Your task to perform on an android device: refresh tabs in the chrome app Image 0: 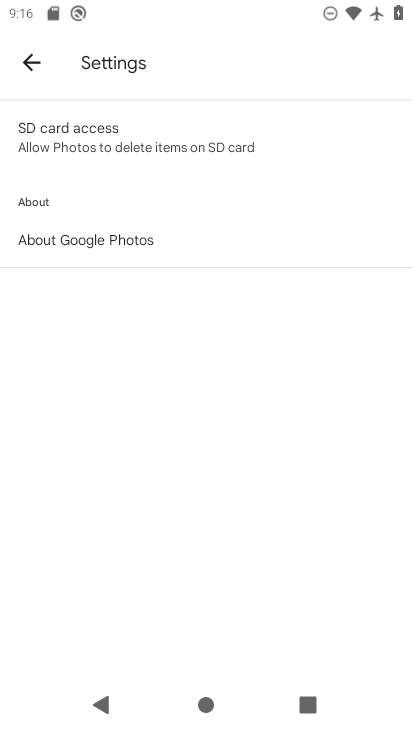
Step 0: press home button
Your task to perform on an android device: refresh tabs in the chrome app Image 1: 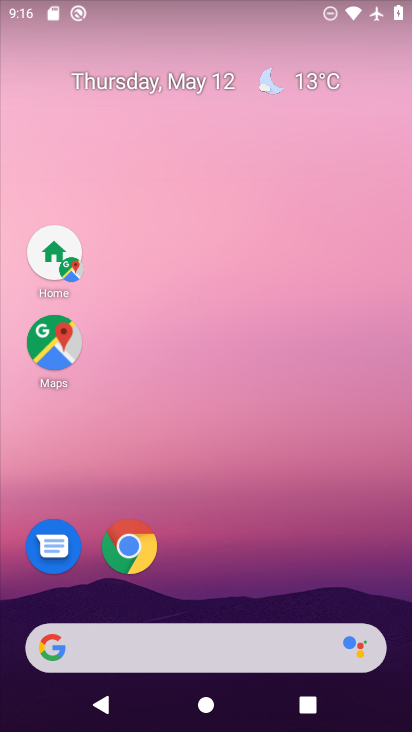
Step 1: drag from (151, 657) to (289, 104)
Your task to perform on an android device: refresh tabs in the chrome app Image 2: 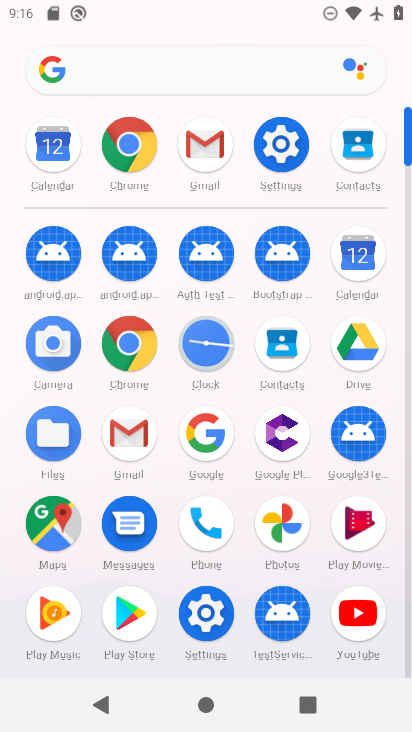
Step 2: click (127, 158)
Your task to perform on an android device: refresh tabs in the chrome app Image 3: 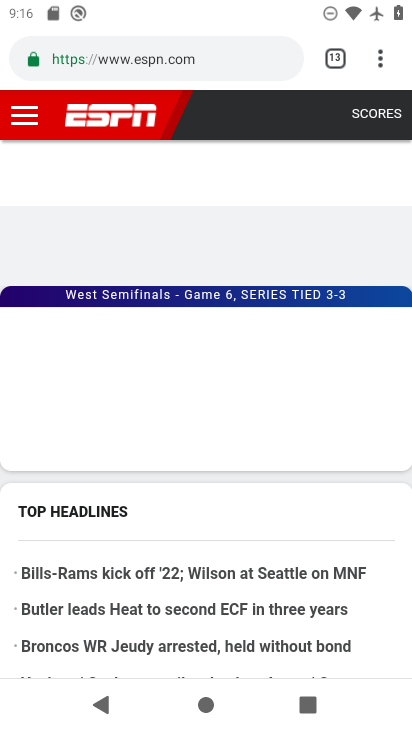
Step 3: click (380, 76)
Your task to perform on an android device: refresh tabs in the chrome app Image 4: 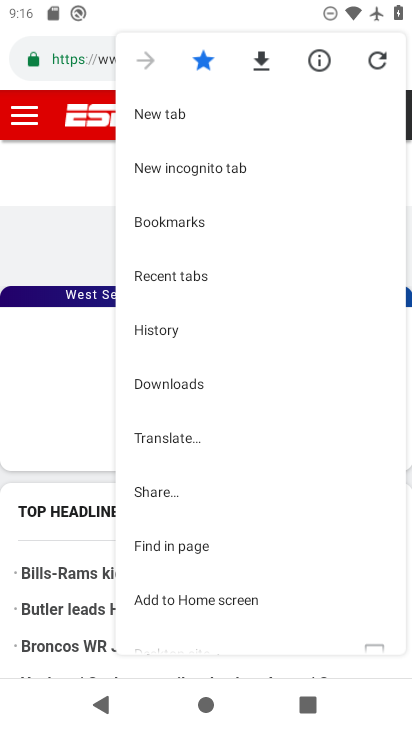
Step 4: click (370, 60)
Your task to perform on an android device: refresh tabs in the chrome app Image 5: 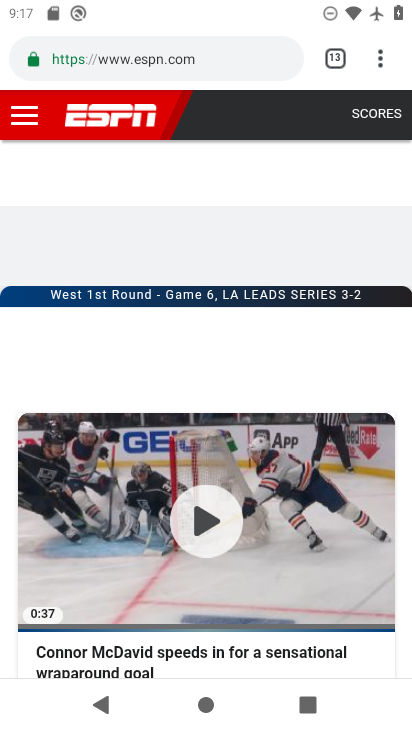
Step 5: task complete